Your task to perform on an android device: turn on wifi Image 0: 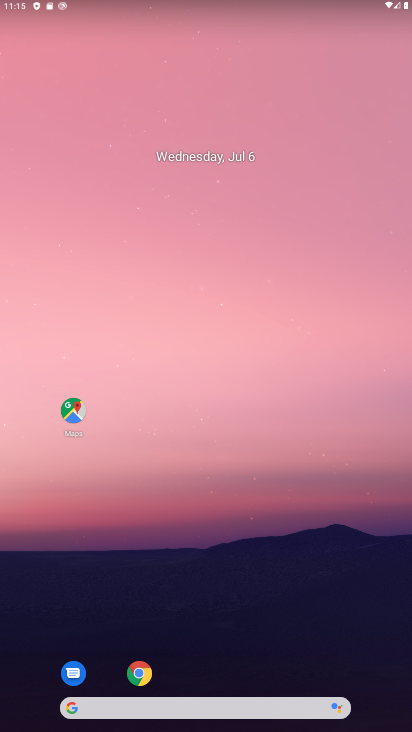
Step 0: drag from (263, 601) to (180, 153)
Your task to perform on an android device: turn on wifi Image 1: 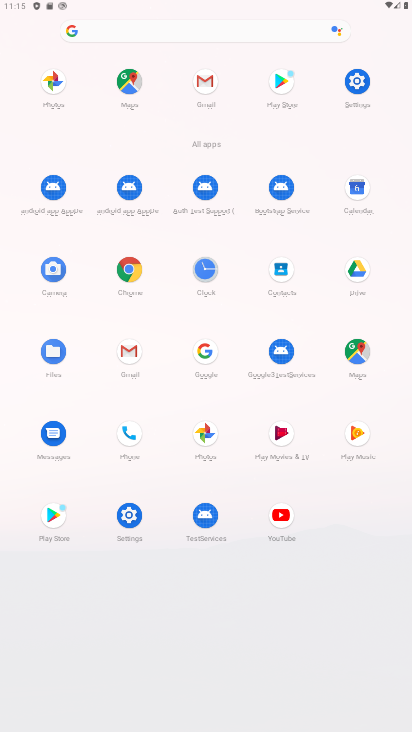
Step 1: click (362, 81)
Your task to perform on an android device: turn on wifi Image 2: 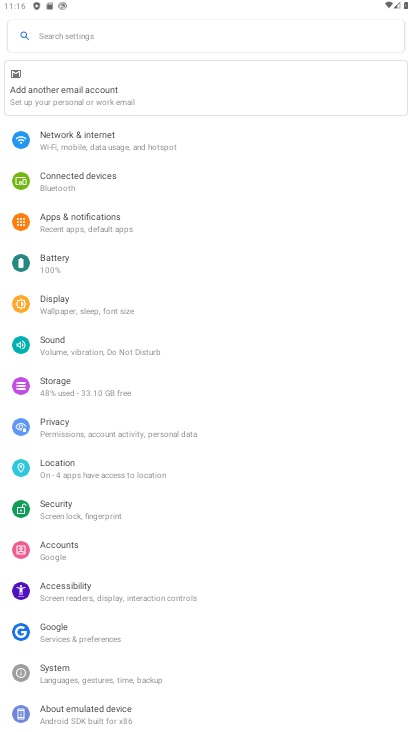
Step 2: click (76, 135)
Your task to perform on an android device: turn on wifi Image 3: 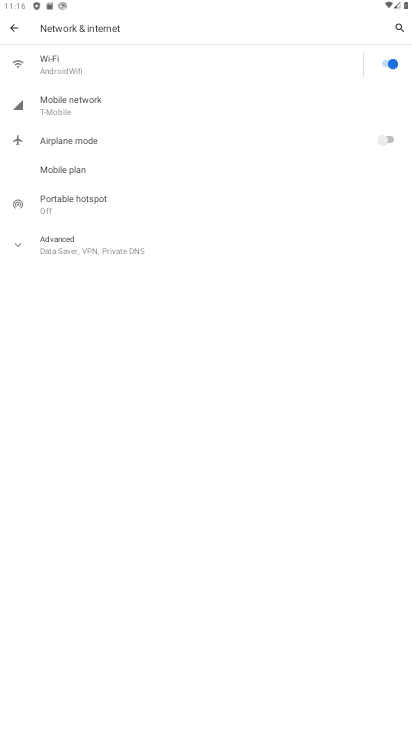
Step 3: task complete